Your task to perform on an android device: turn off notifications in google photos Image 0: 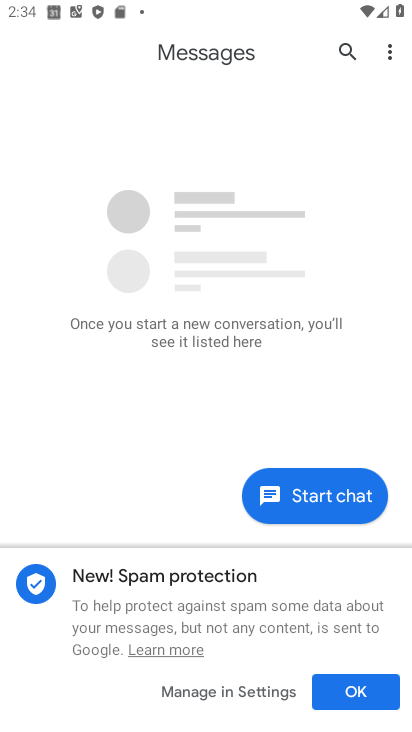
Step 0: press home button
Your task to perform on an android device: turn off notifications in google photos Image 1: 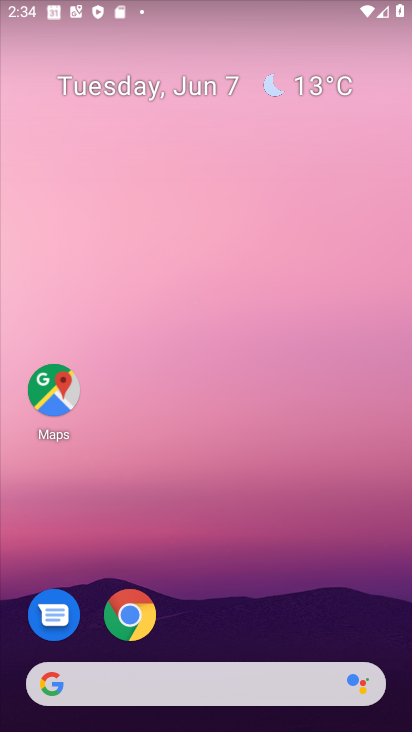
Step 1: drag from (270, 652) to (308, 211)
Your task to perform on an android device: turn off notifications in google photos Image 2: 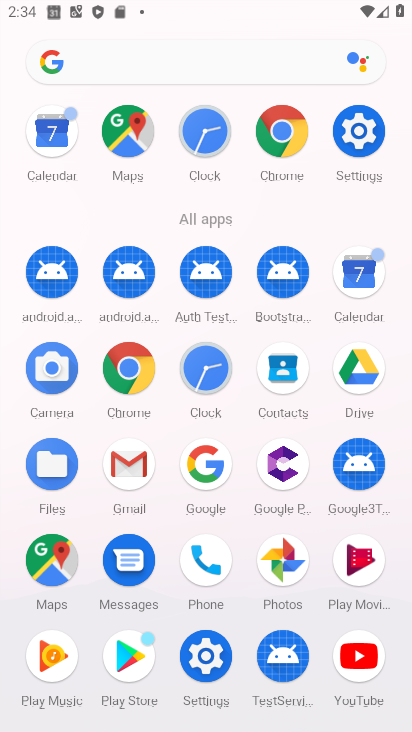
Step 2: click (283, 567)
Your task to perform on an android device: turn off notifications in google photos Image 3: 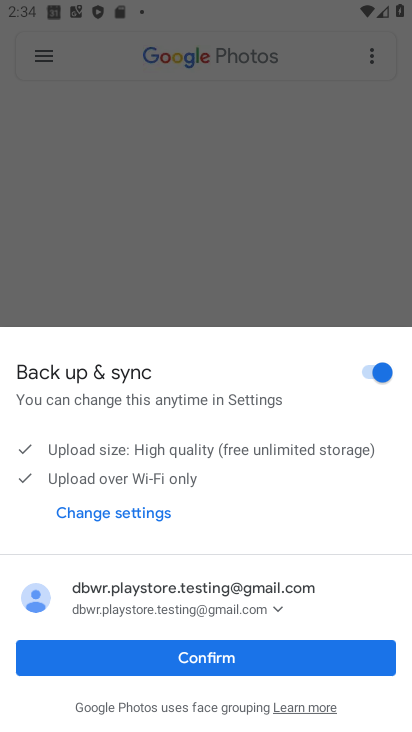
Step 3: click (219, 659)
Your task to perform on an android device: turn off notifications in google photos Image 4: 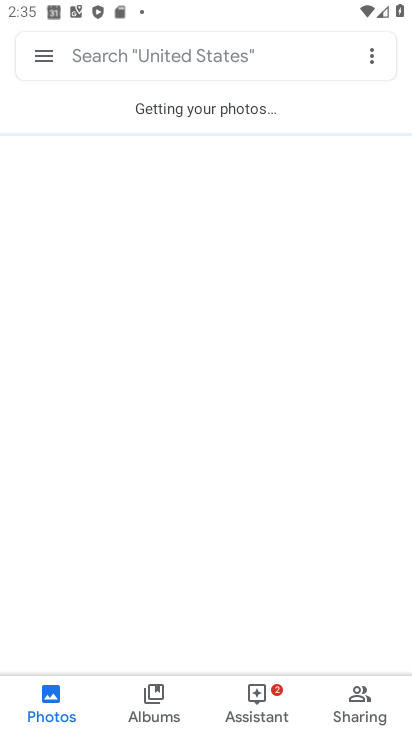
Step 4: click (54, 55)
Your task to perform on an android device: turn off notifications in google photos Image 5: 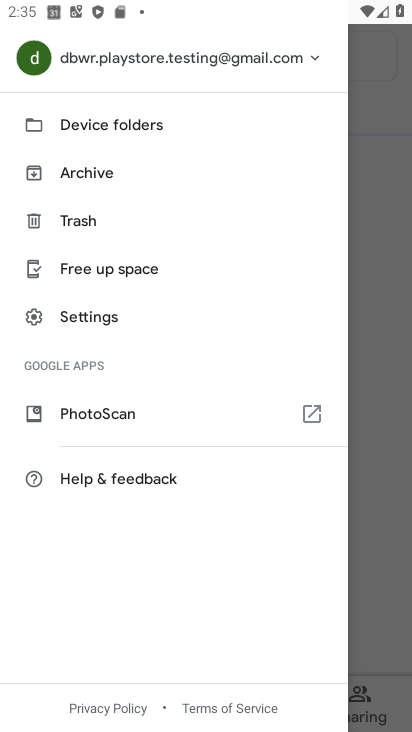
Step 5: click (96, 311)
Your task to perform on an android device: turn off notifications in google photos Image 6: 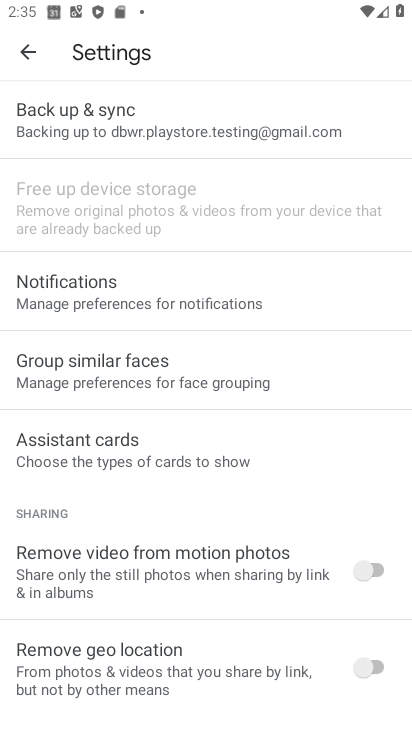
Step 6: drag from (49, 677) to (226, 168)
Your task to perform on an android device: turn off notifications in google photos Image 7: 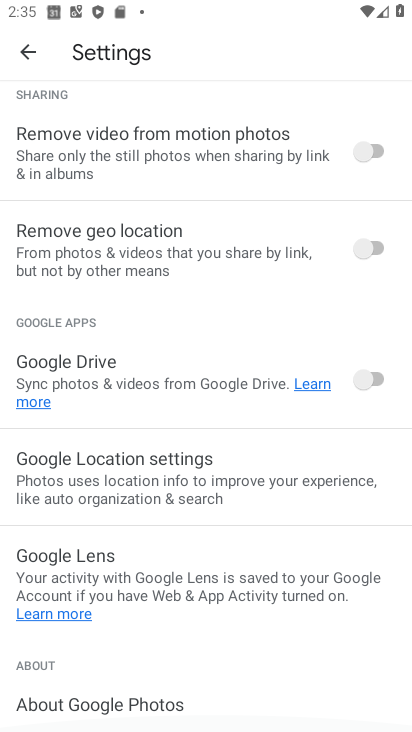
Step 7: drag from (44, 624) to (185, 630)
Your task to perform on an android device: turn off notifications in google photos Image 8: 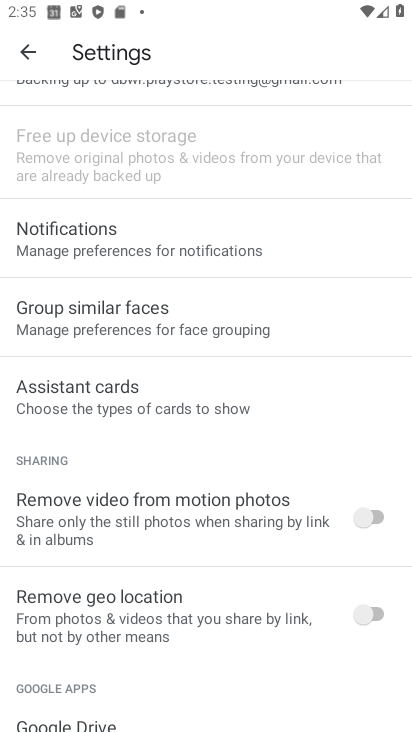
Step 8: click (183, 261)
Your task to perform on an android device: turn off notifications in google photos Image 9: 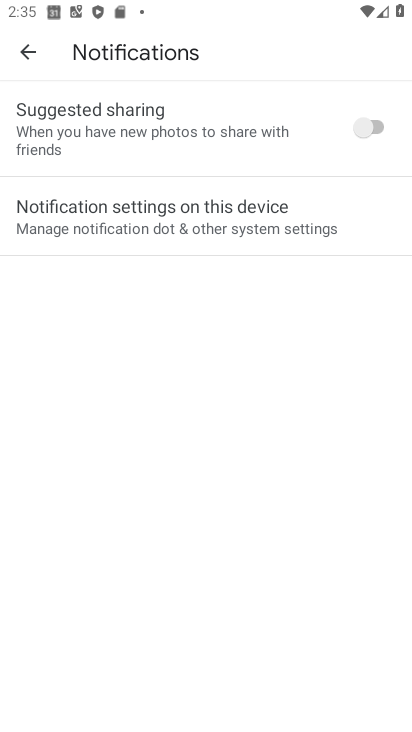
Step 9: click (240, 253)
Your task to perform on an android device: turn off notifications in google photos Image 10: 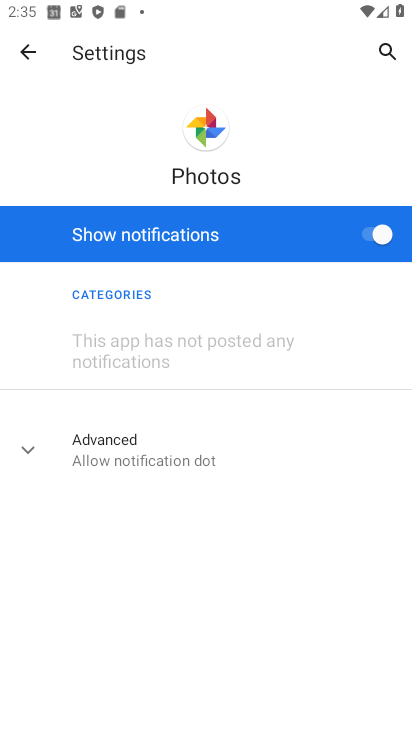
Step 10: click (367, 235)
Your task to perform on an android device: turn off notifications in google photos Image 11: 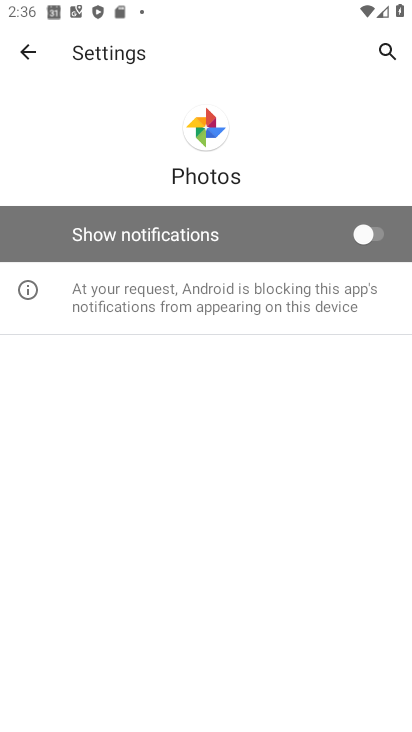
Step 11: task complete